Your task to perform on an android device: Open Youtube and go to "Your channel" Image 0: 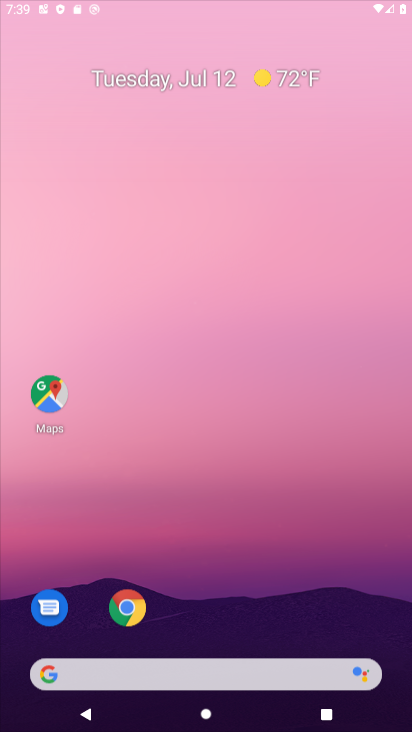
Step 0: press home button
Your task to perform on an android device: Open Youtube and go to "Your channel" Image 1: 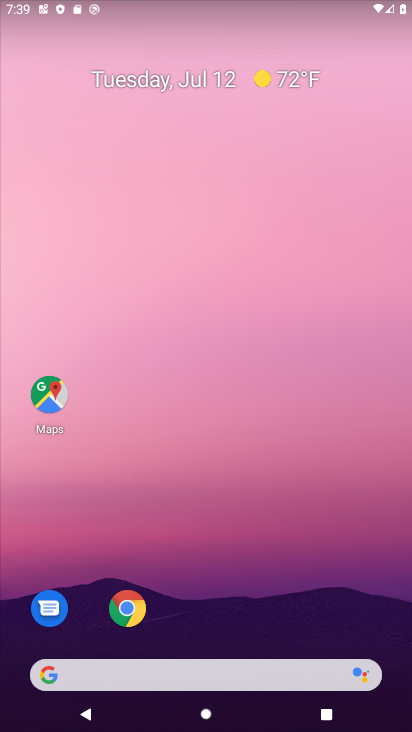
Step 1: drag from (355, 575) to (357, 311)
Your task to perform on an android device: Open Youtube and go to "Your channel" Image 2: 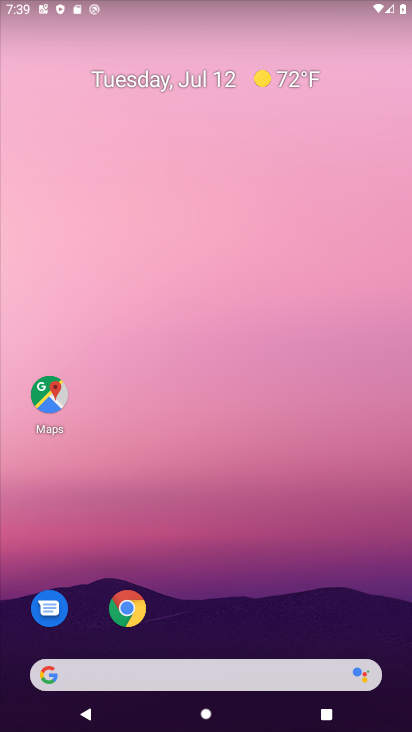
Step 2: drag from (333, 557) to (369, 156)
Your task to perform on an android device: Open Youtube and go to "Your channel" Image 3: 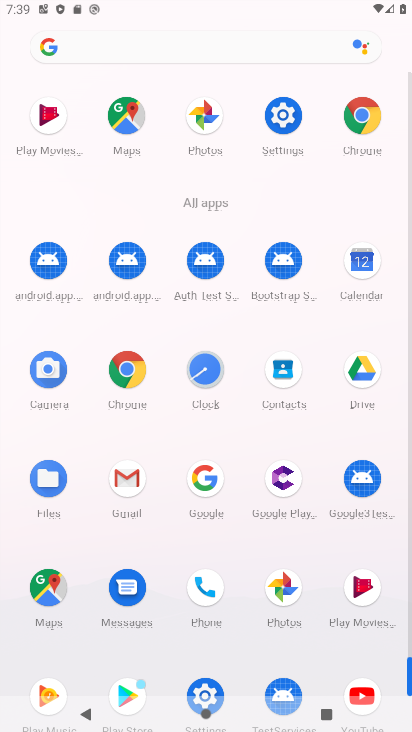
Step 3: drag from (398, 620) to (400, 452)
Your task to perform on an android device: Open Youtube and go to "Your channel" Image 4: 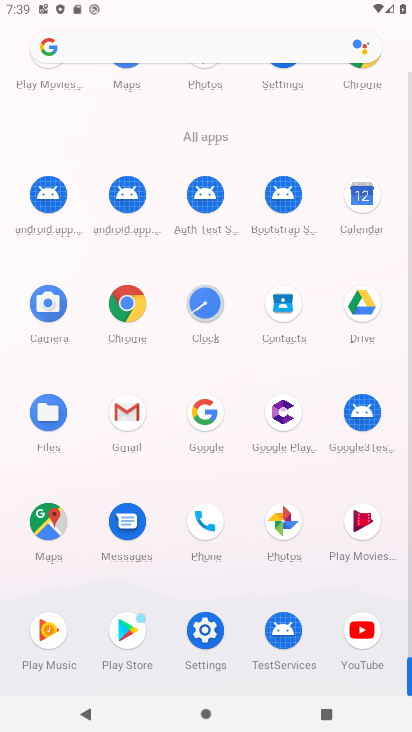
Step 4: click (366, 654)
Your task to perform on an android device: Open Youtube and go to "Your channel" Image 5: 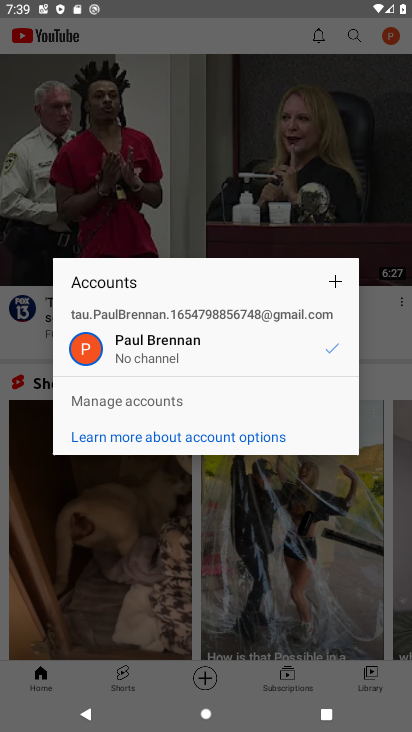
Step 5: press back button
Your task to perform on an android device: Open Youtube and go to "Your channel" Image 6: 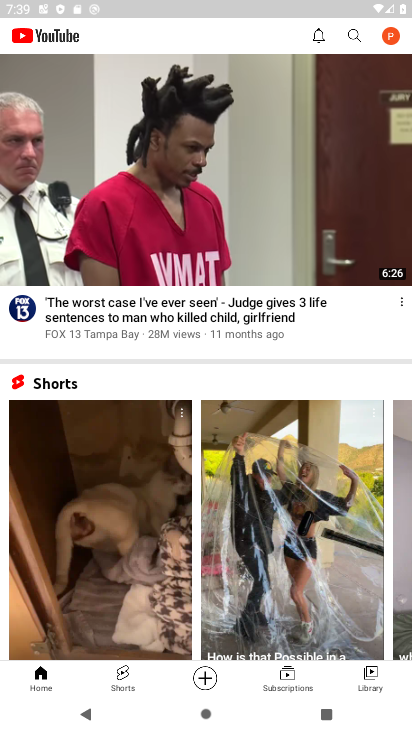
Step 6: click (392, 30)
Your task to perform on an android device: Open Youtube and go to "Your channel" Image 7: 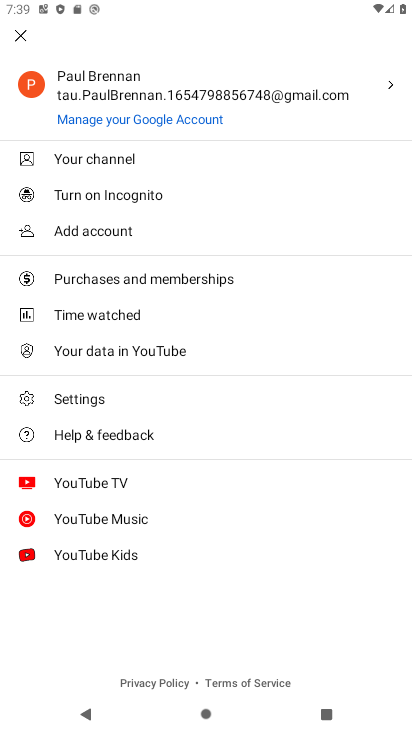
Step 7: click (128, 158)
Your task to perform on an android device: Open Youtube and go to "Your channel" Image 8: 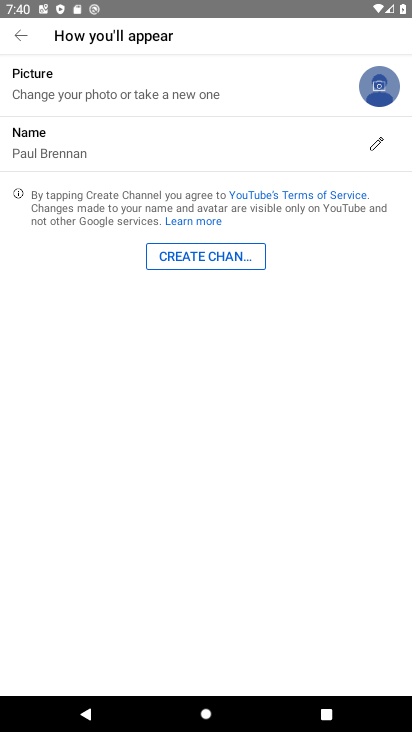
Step 8: task complete